Your task to perform on an android device: turn on improve location accuracy Image 0: 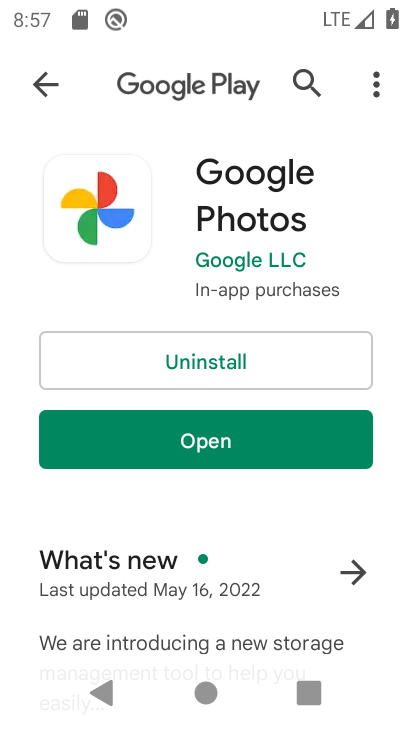
Step 0: press home button
Your task to perform on an android device: turn on improve location accuracy Image 1: 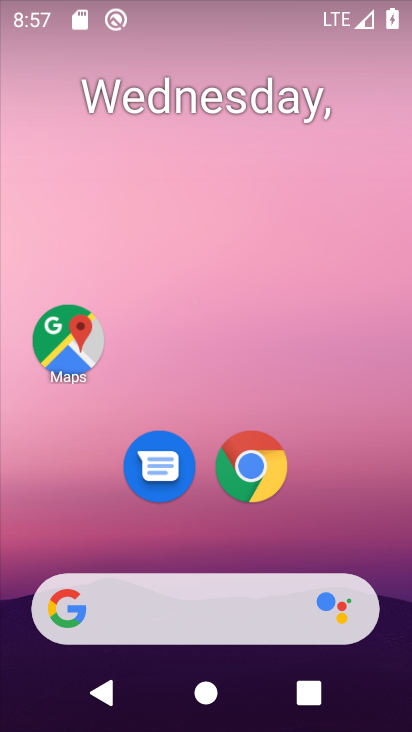
Step 1: drag from (222, 726) to (198, 226)
Your task to perform on an android device: turn on improve location accuracy Image 2: 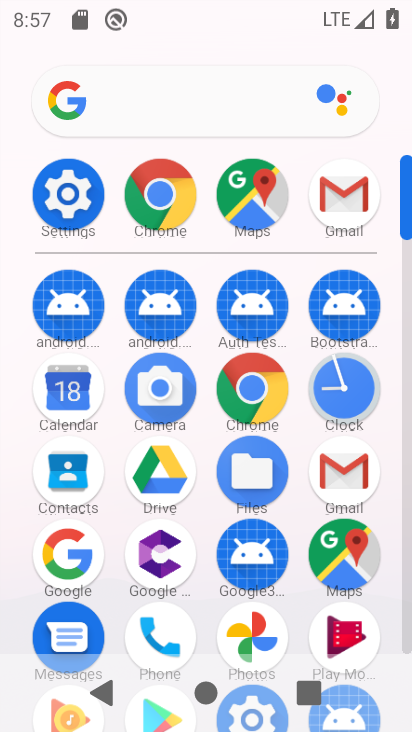
Step 2: click (68, 197)
Your task to perform on an android device: turn on improve location accuracy Image 3: 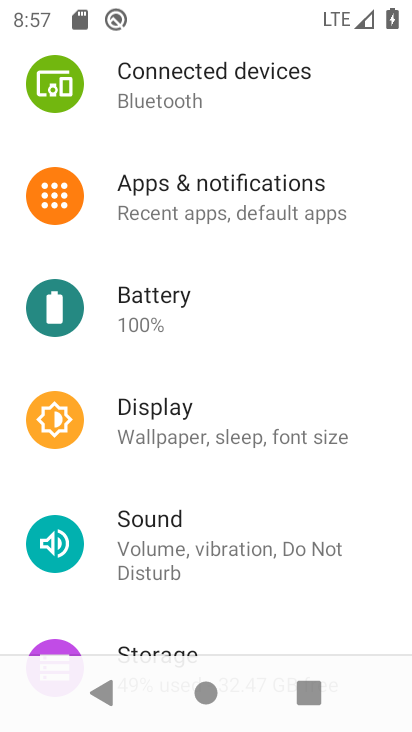
Step 3: drag from (161, 606) to (164, 327)
Your task to perform on an android device: turn on improve location accuracy Image 4: 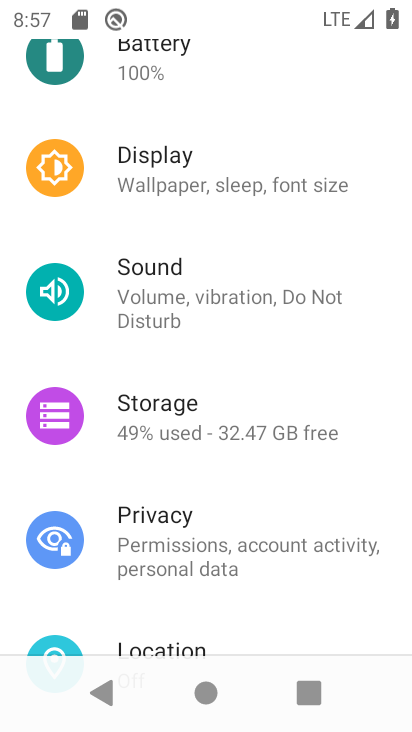
Step 4: drag from (179, 619) to (185, 345)
Your task to perform on an android device: turn on improve location accuracy Image 5: 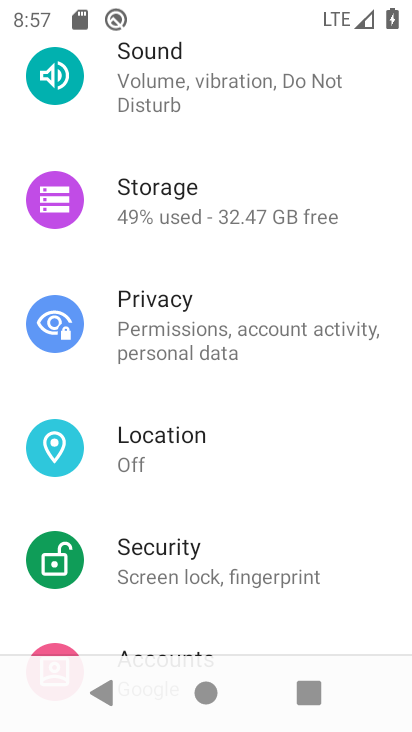
Step 5: click (159, 436)
Your task to perform on an android device: turn on improve location accuracy Image 6: 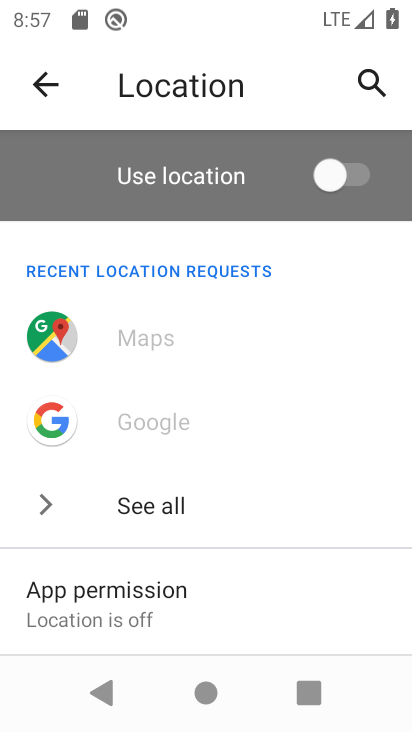
Step 6: drag from (187, 618) to (207, 354)
Your task to perform on an android device: turn on improve location accuracy Image 7: 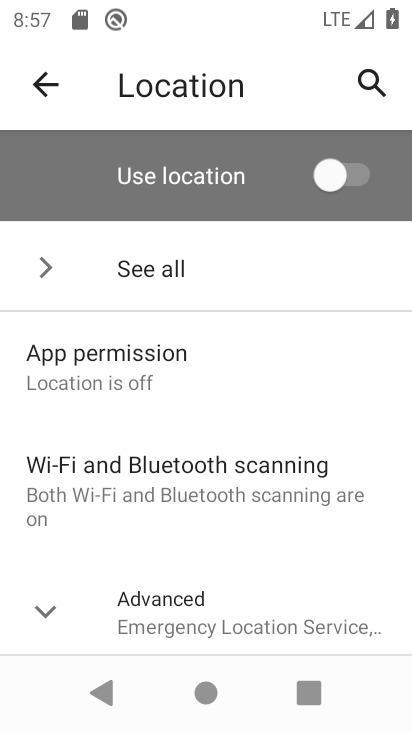
Step 7: drag from (174, 604) to (182, 356)
Your task to perform on an android device: turn on improve location accuracy Image 8: 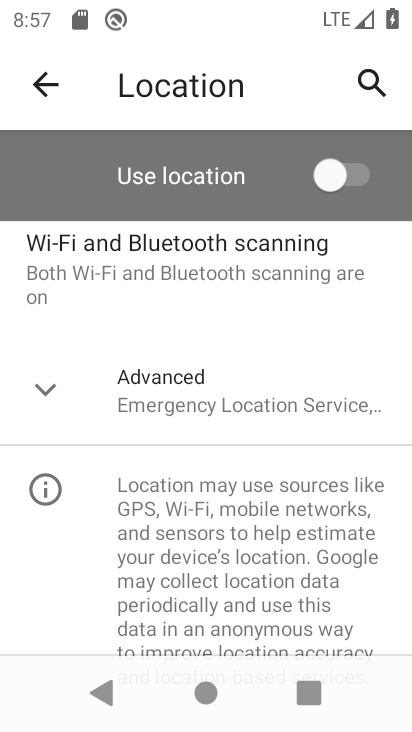
Step 8: click (178, 394)
Your task to perform on an android device: turn on improve location accuracy Image 9: 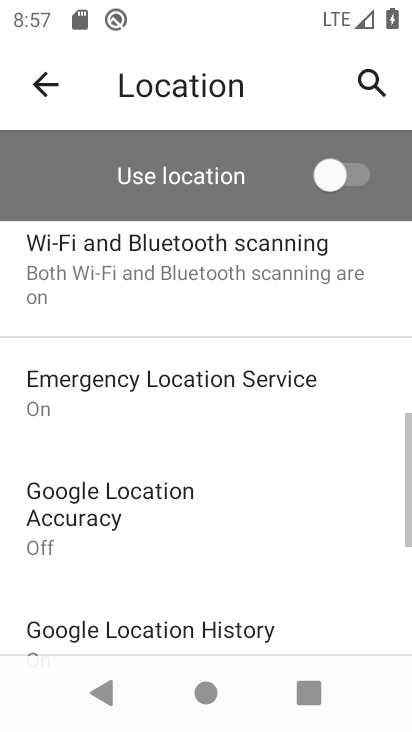
Step 9: drag from (191, 613) to (195, 402)
Your task to perform on an android device: turn on improve location accuracy Image 10: 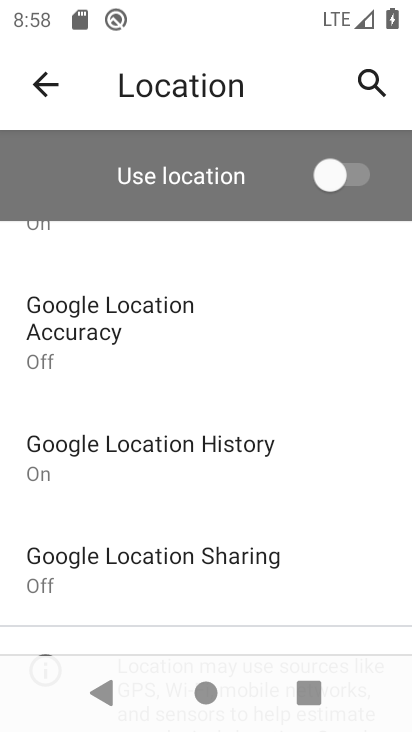
Step 10: click (134, 302)
Your task to perform on an android device: turn on improve location accuracy Image 11: 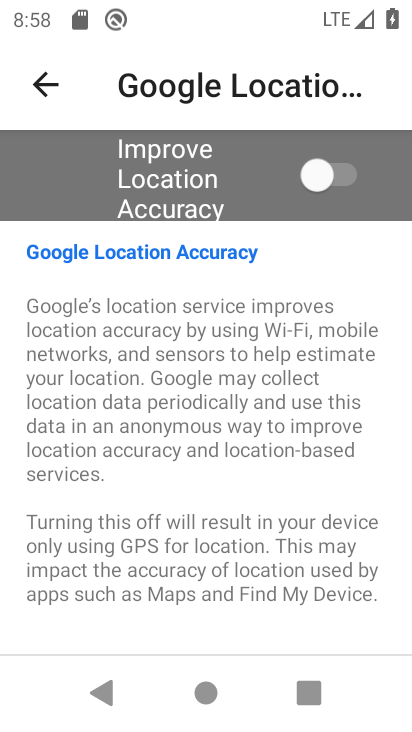
Step 11: click (341, 175)
Your task to perform on an android device: turn on improve location accuracy Image 12: 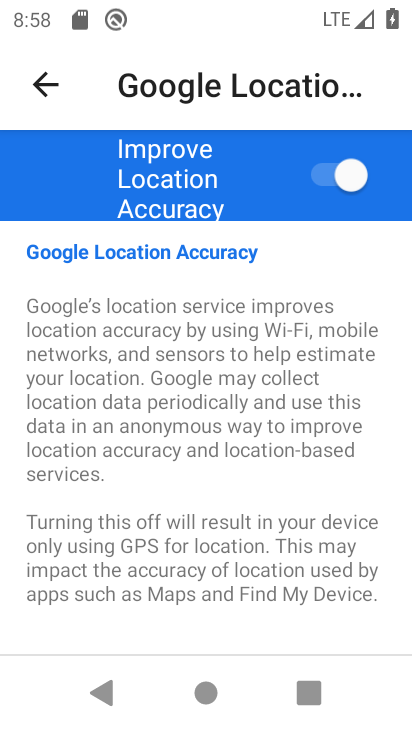
Step 12: task complete